Your task to perform on an android device: turn notification dots off Image 0: 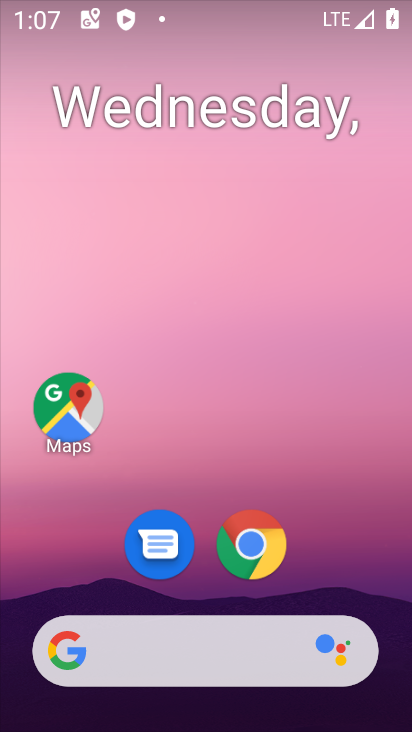
Step 0: drag from (402, 634) to (343, 57)
Your task to perform on an android device: turn notification dots off Image 1: 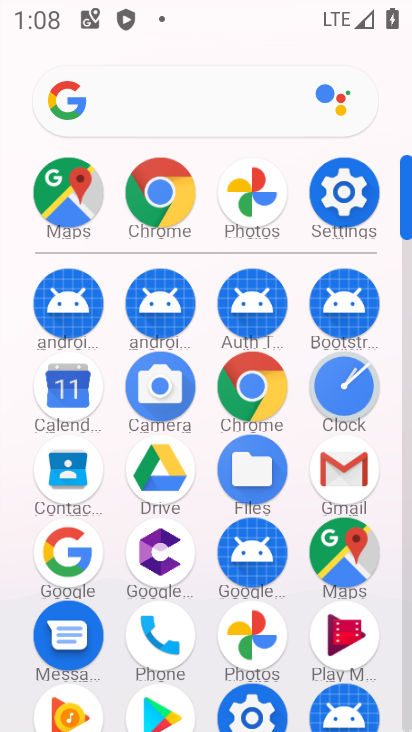
Step 1: click (280, 704)
Your task to perform on an android device: turn notification dots off Image 2: 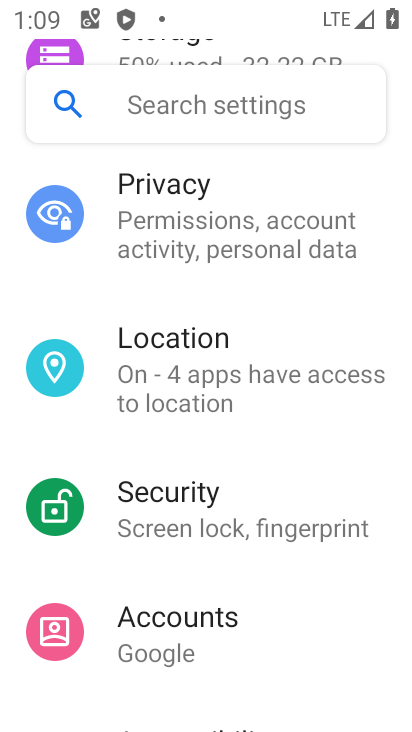
Step 2: drag from (166, 611) to (225, 221)
Your task to perform on an android device: turn notification dots off Image 3: 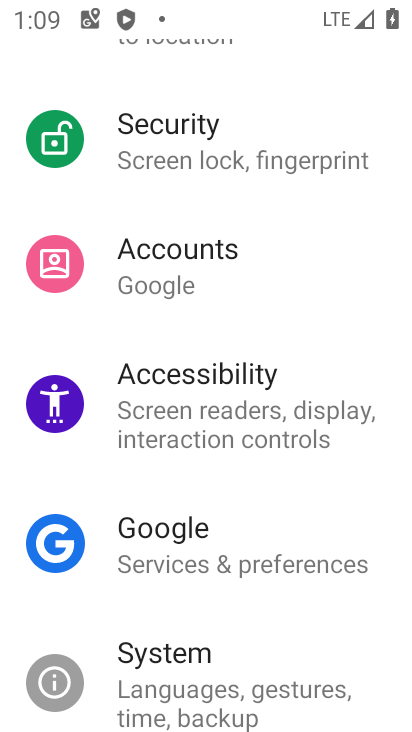
Step 3: drag from (241, 243) to (236, 692)
Your task to perform on an android device: turn notification dots off Image 4: 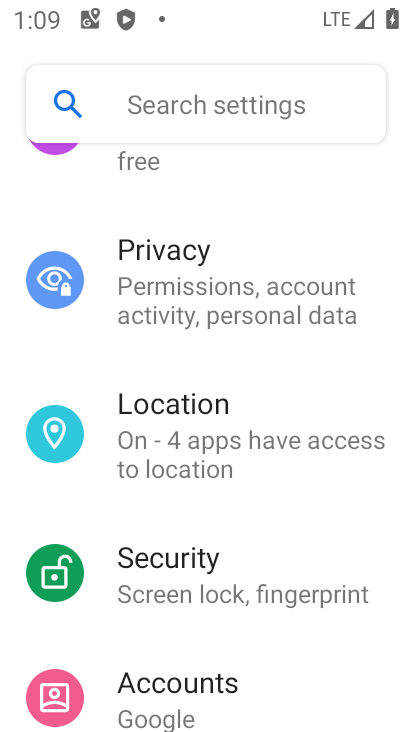
Step 4: drag from (197, 246) to (209, 635)
Your task to perform on an android device: turn notification dots off Image 5: 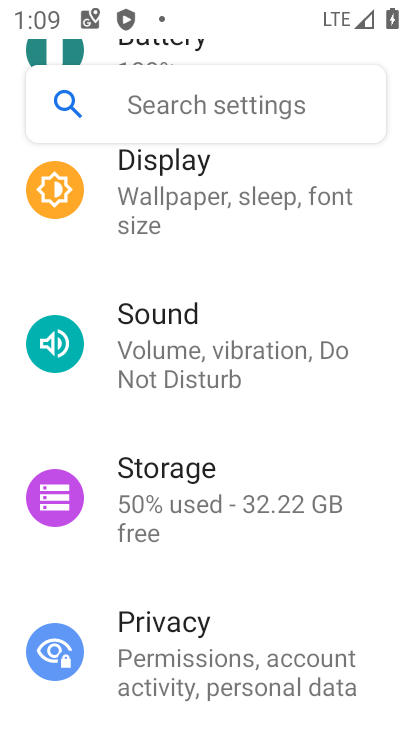
Step 5: drag from (183, 285) to (182, 644)
Your task to perform on an android device: turn notification dots off Image 6: 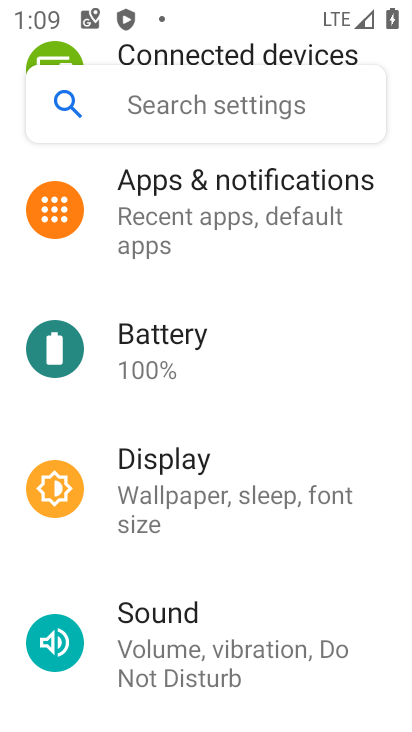
Step 6: click (223, 228)
Your task to perform on an android device: turn notification dots off Image 7: 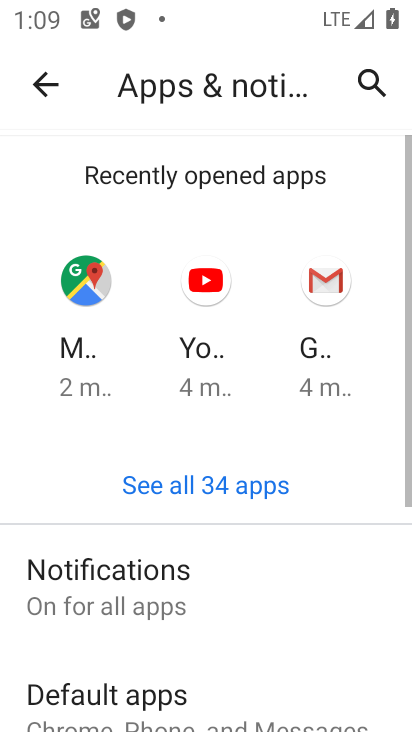
Step 7: click (179, 592)
Your task to perform on an android device: turn notification dots off Image 8: 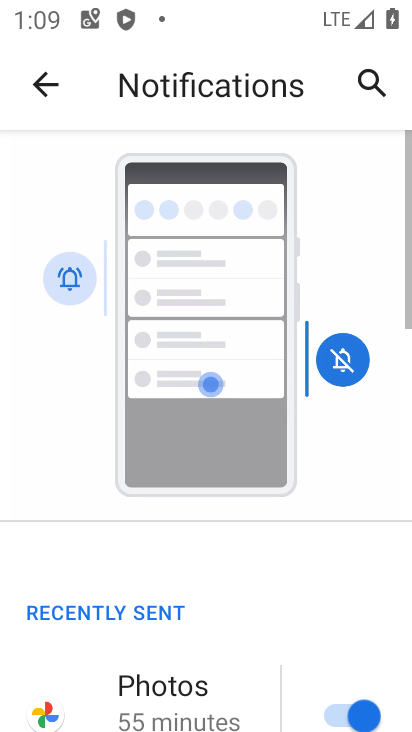
Step 8: drag from (157, 659) to (238, 42)
Your task to perform on an android device: turn notification dots off Image 9: 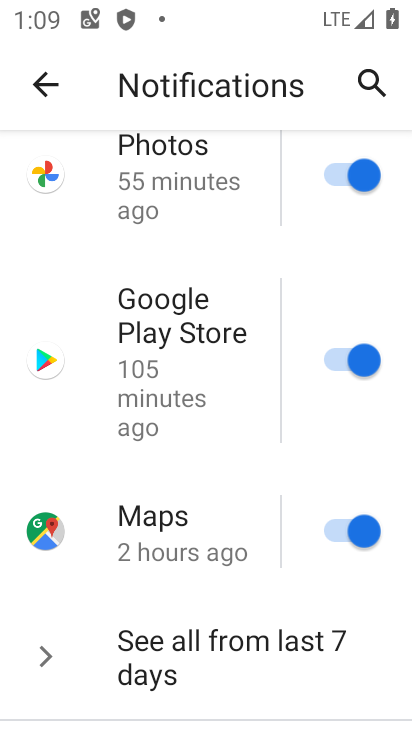
Step 9: drag from (148, 653) to (231, 108)
Your task to perform on an android device: turn notification dots off Image 10: 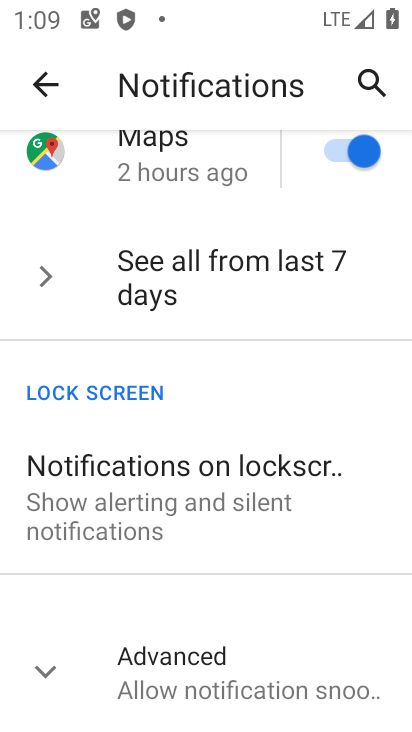
Step 10: click (219, 540)
Your task to perform on an android device: turn notification dots off Image 11: 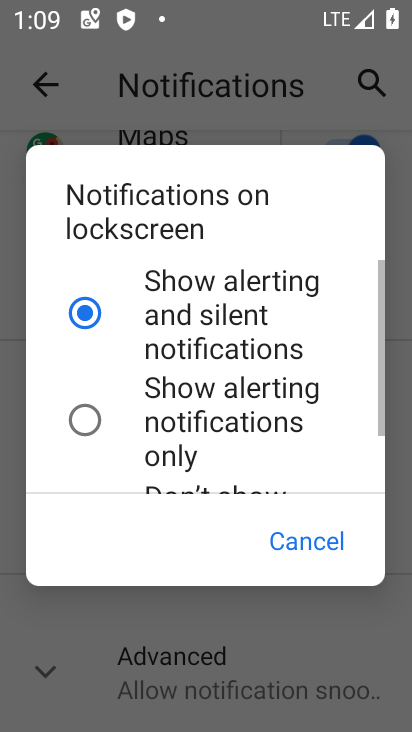
Step 11: click (284, 551)
Your task to perform on an android device: turn notification dots off Image 12: 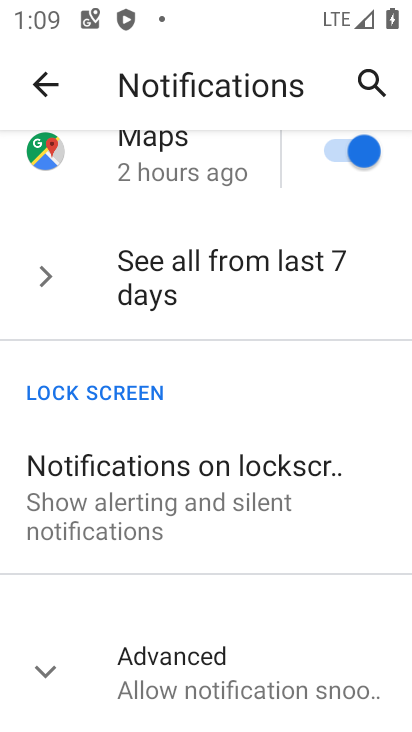
Step 12: click (46, 658)
Your task to perform on an android device: turn notification dots off Image 13: 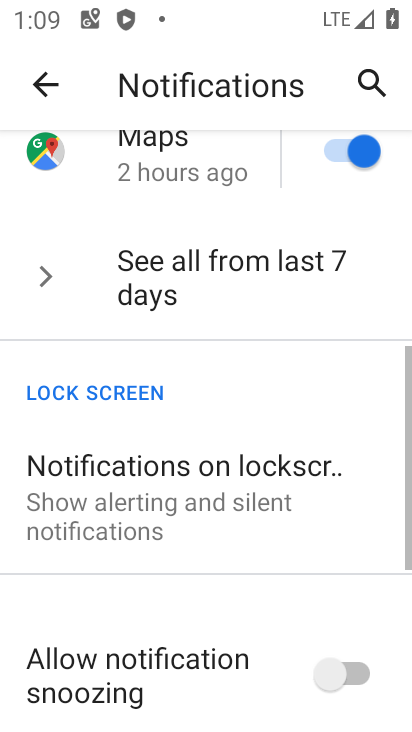
Step 13: task complete